Your task to perform on an android device: Search for the top rated book on goodreads. Image 0: 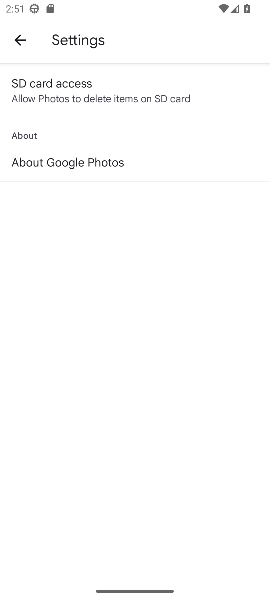
Step 0: press home button
Your task to perform on an android device: Search for the top rated book on goodreads. Image 1: 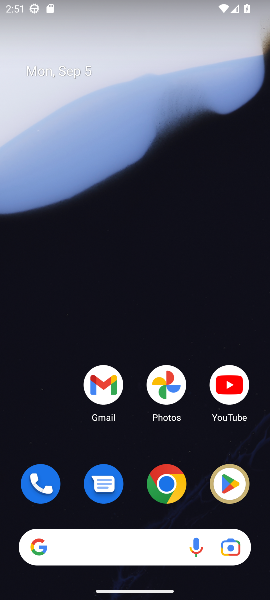
Step 1: click (168, 492)
Your task to perform on an android device: Search for the top rated book on goodreads. Image 2: 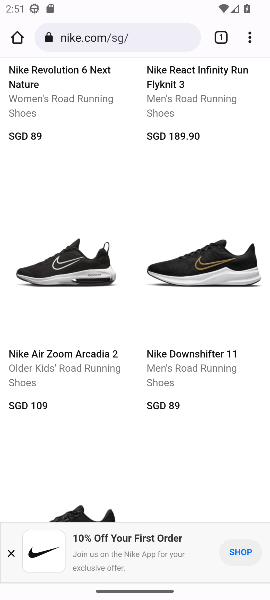
Step 2: click (112, 38)
Your task to perform on an android device: Search for the top rated book on goodreads. Image 3: 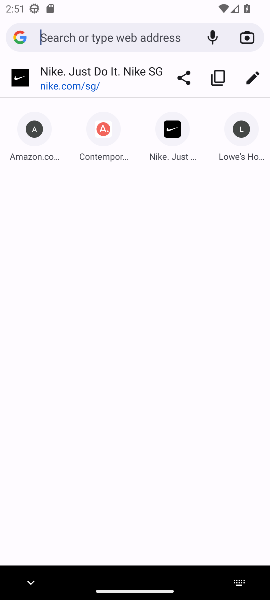
Step 3: type "goodreads"
Your task to perform on an android device: Search for the top rated book on goodreads. Image 4: 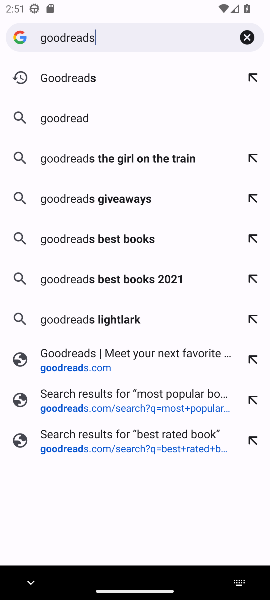
Step 4: press enter
Your task to perform on an android device: Search for the top rated book on goodreads. Image 5: 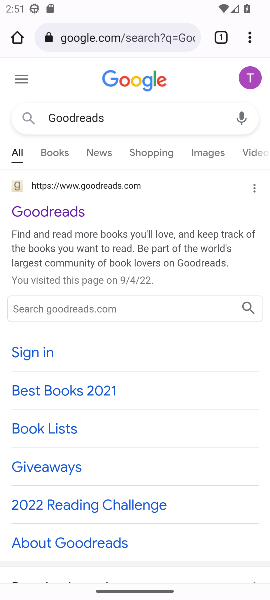
Step 5: click (66, 206)
Your task to perform on an android device: Search for the top rated book on goodreads. Image 6: 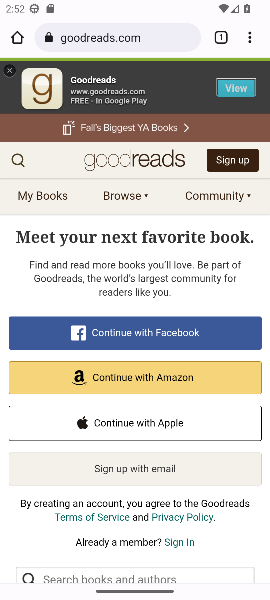
Step 6: click (18, 155)
Your task to perform on an android device: Search for the top rated book on goodreads. Image 7: 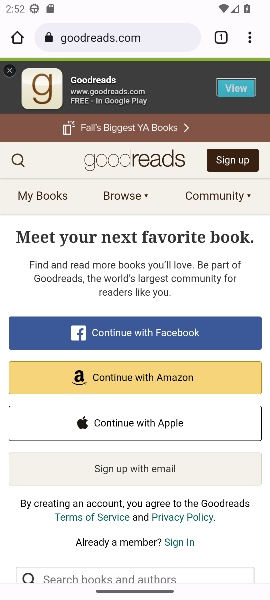
Step 7: click (18, 163)
Your task to perform on an android device: Search for the top rated book on goodreads. Image 8: 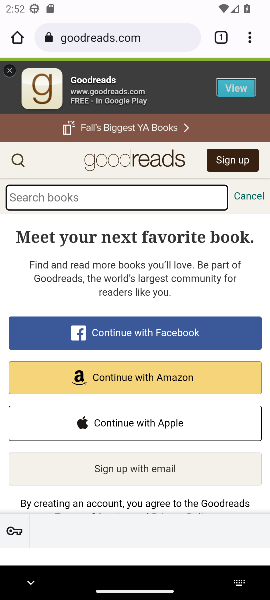
Step 8: type "top rated book"
Your task to perform on an android device: Search for the top rated book on goodreads. Image 9: 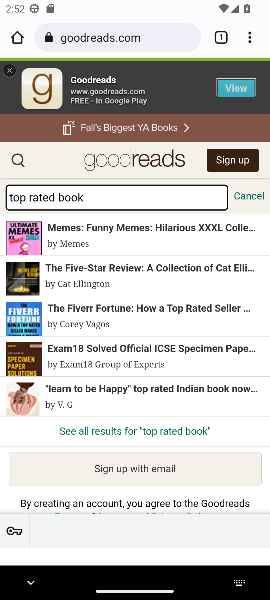
Step 9: task complete